Your task to perform on an android device: Open the map Image 0: 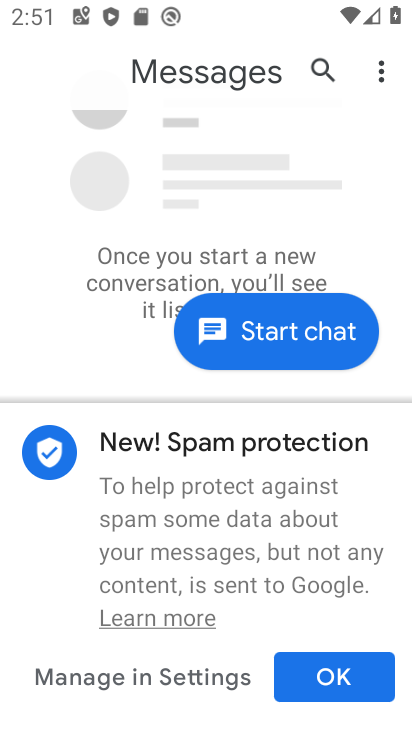
Step 0: press home button
Your task to perform on an android device: Open the map Image 1: 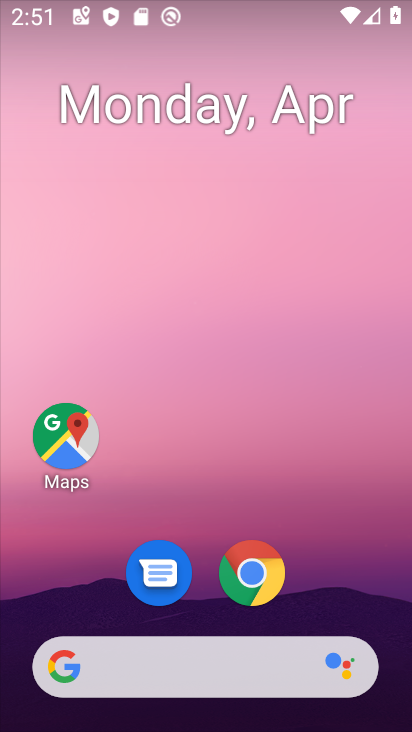
Step 1: drag from (358, 596) to (348, 72)
Your task to perform on an android device: Open the map Image 2: 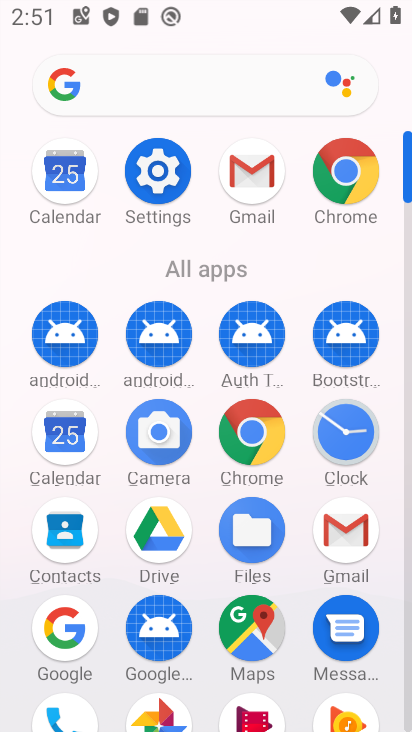
Step 2: click (266, 632)
Your task to perform on an android device: Open the map Image 3: 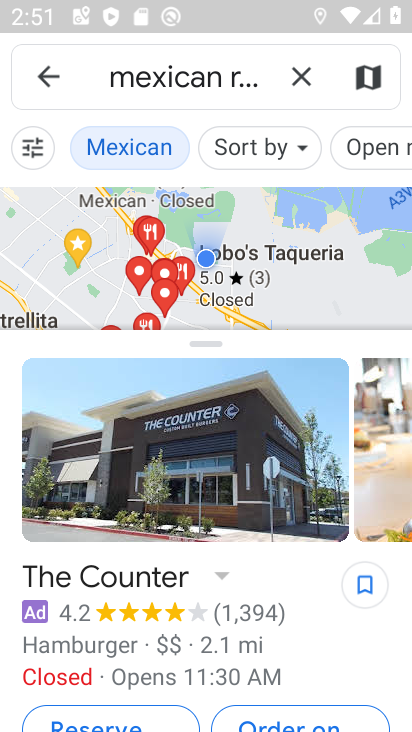
Step 3: task complete